Your task to perform on an android device: turn on sleep mode Image 0: 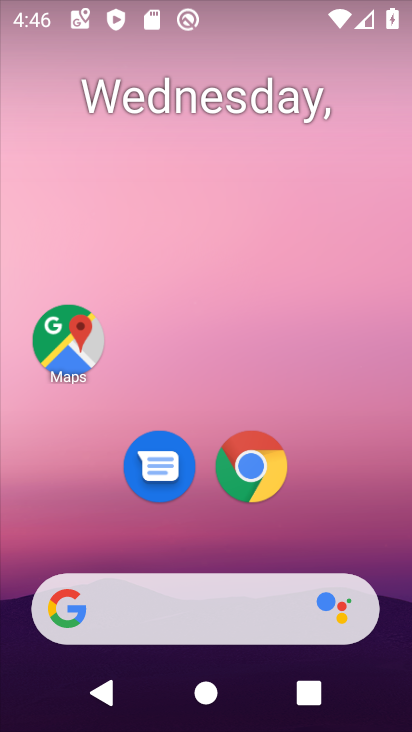
Step 0: drag from (401, 606) to (324, 227)
Your task to perform on an android device: turn on sleep mode Image 1: 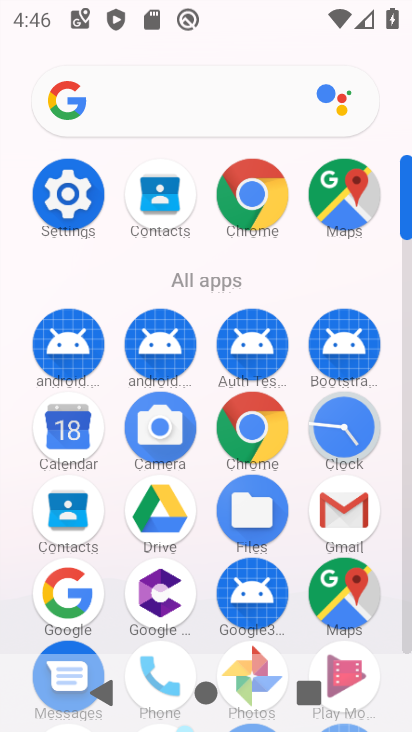
Step 1: click (409, 623)
Your task to perform on an android device: turn on sleep mode Image 2: 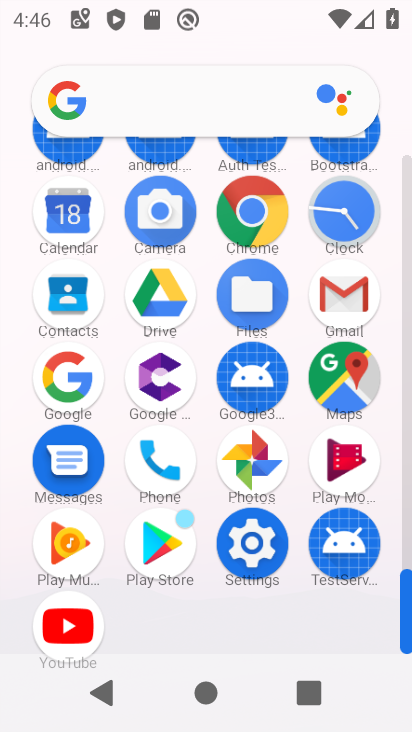
Step 2: click (252, 548)
Your task to perform on an android device: turn on sleep mode Image 3: 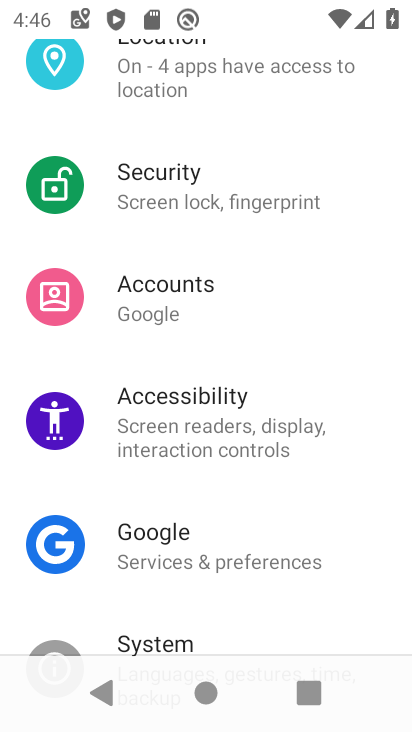
Step 3: drag from (355, 213) to (344, 527)
Your task to perform on an android device: turn on sleep mode Image 4: 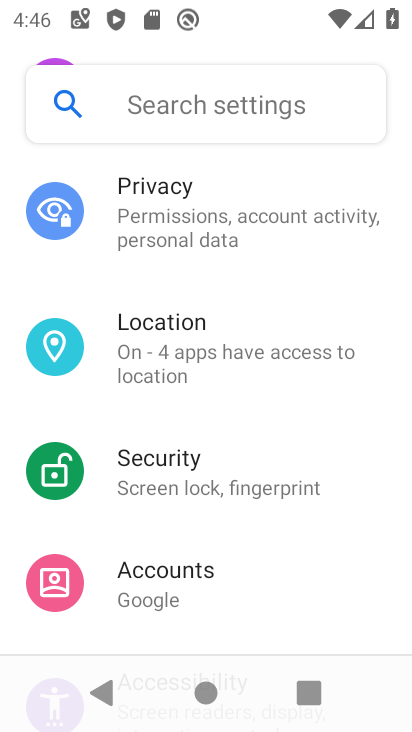
Step 4: drag from (348, 174) to (327, 517)
Your task to perform on an android device: turn on sleep mode Image 5: 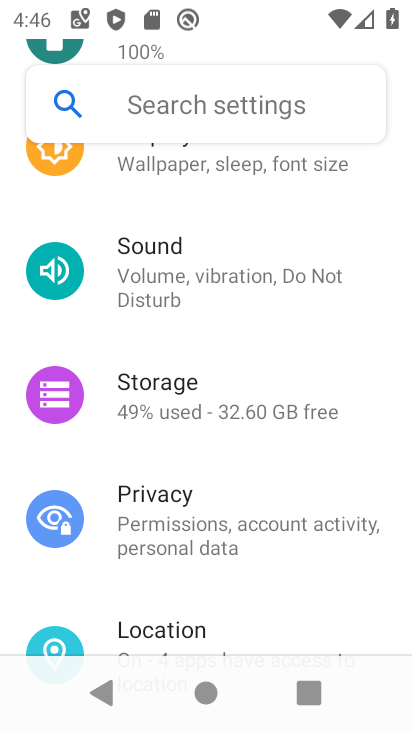
Step 5: drag from (362, 260) to (361, 496)
Your task to perform on an android device: turn on sleep mode Image 6: 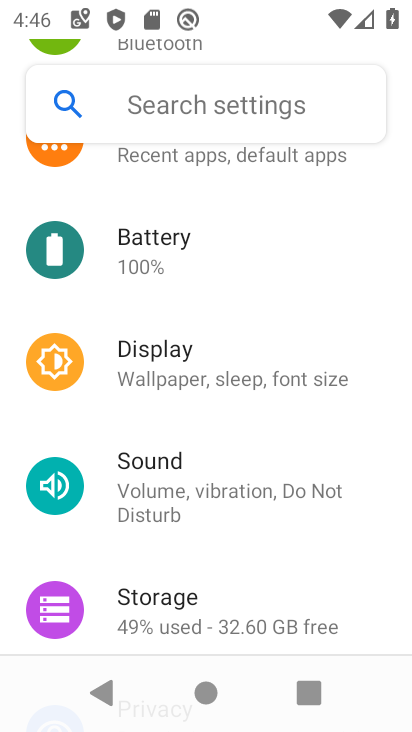
Step 6: click (171, 361)
Your task to perform on an android device: turn on sleep mode Image 7: 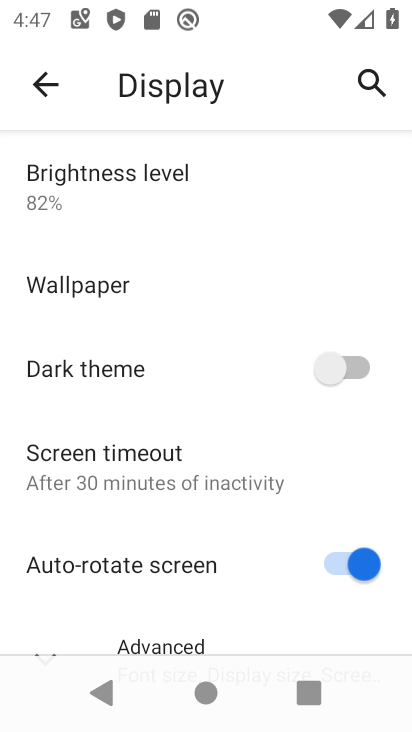
Step 7: drag from (183, 580) to (248, 291)
Your task to perform on an android device: turn on sleep mode Image 8: 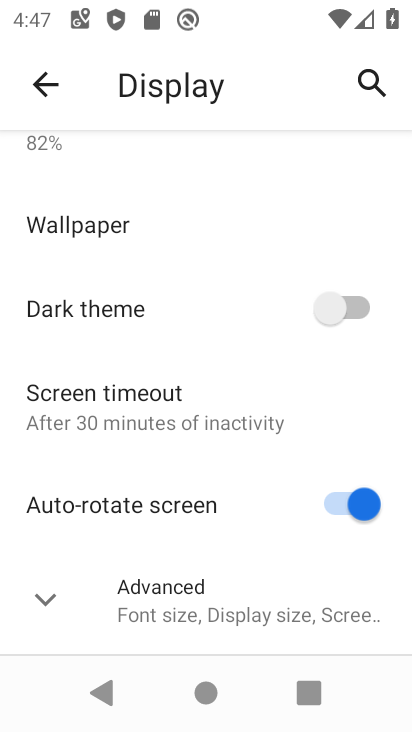
Step 8: click (40, 602)
Your task to perform on an android device: turn on sleep mode Image 9: 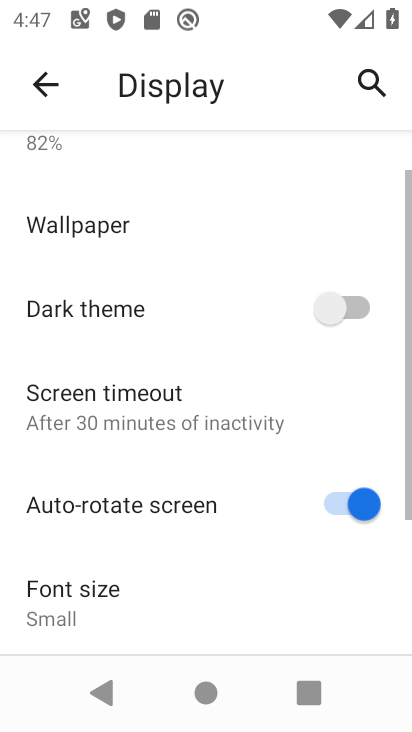
Step 9: task complete